Your task to perform on an android device: open device folders in google photos Image 0: 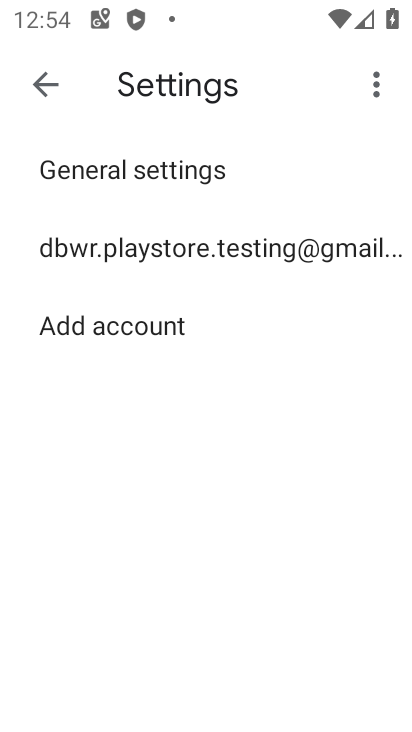
Step 0: press home button
Your task to perform on an android device: open device folders in google photos Image 1: 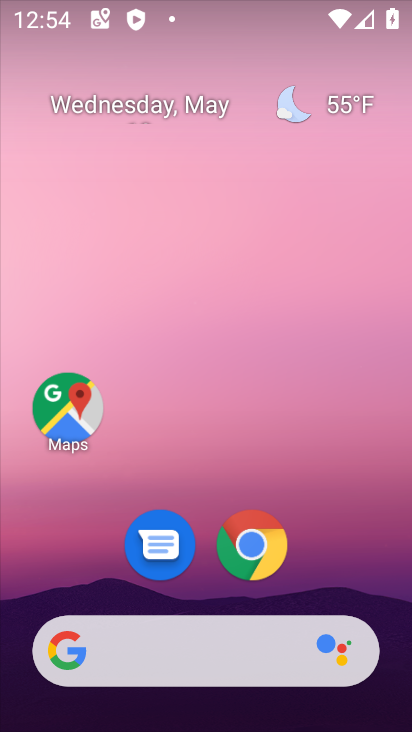
Step 1: drag from (303, 524) to (274, 38)
Your task to perform on an android device: open device folders in google photos Image 2: 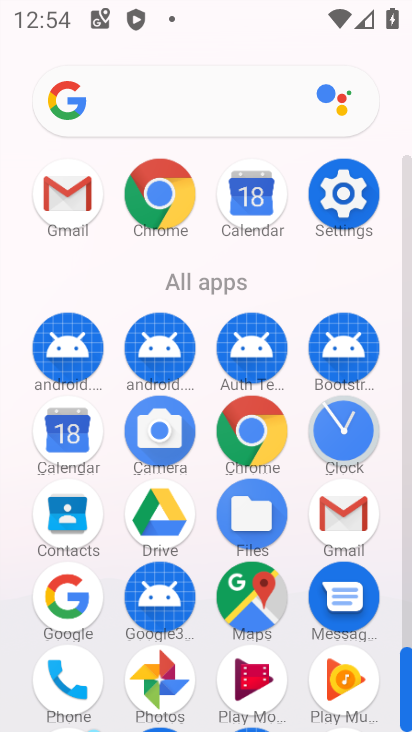
Step 2: click (163, 667)
Your task to perform on an android device: open device folders in google photos Image 3: 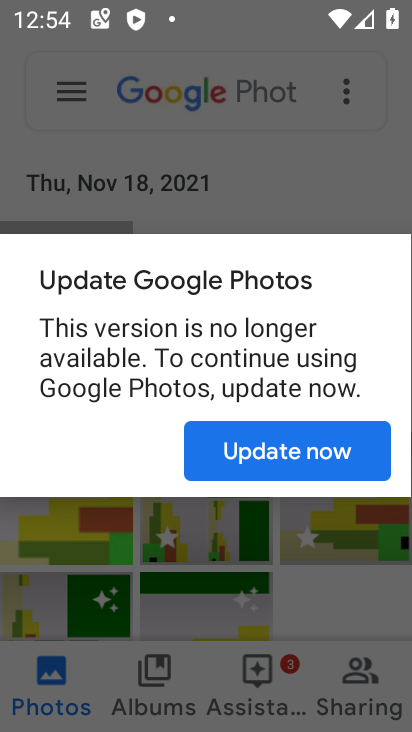
Step 3: click (275, 462)
Your task to perform on an android device: open device folders in google photos Image 4: 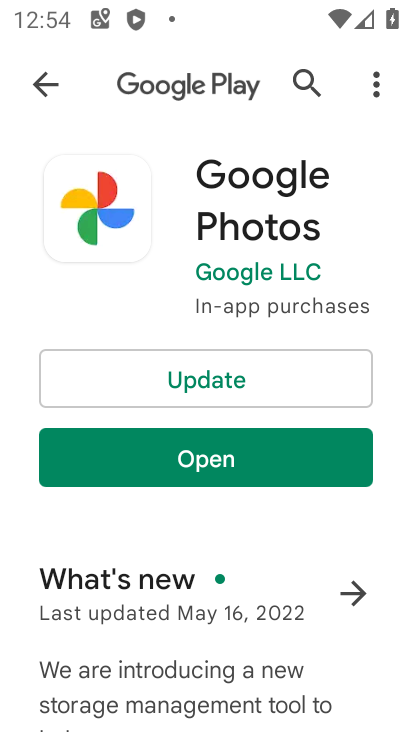
Step 4: click (306, 450)
Your task to perform on an android device: open device folders in google photos Image 5: 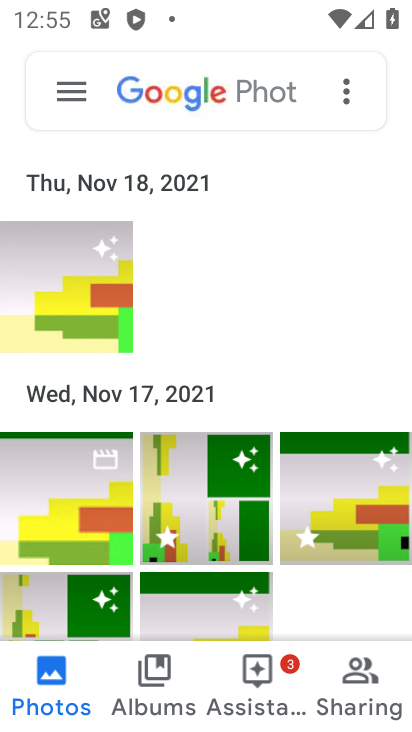
Step 5: click (78, 96)
Your task to perform on an android device: open device folders in google photos Image 6: 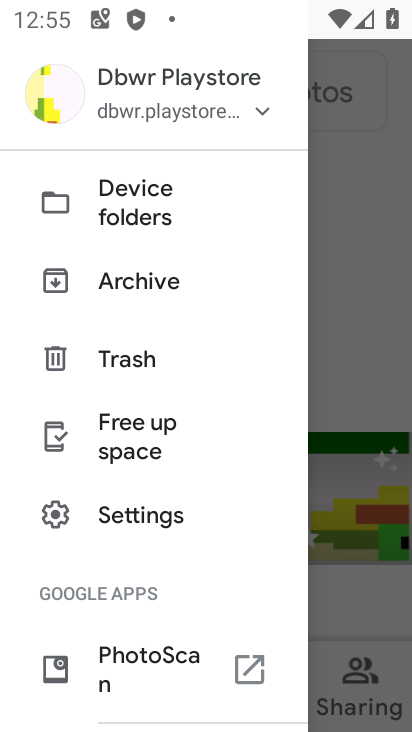
Step 6: click (152, 207)
Your task to perform on an android device: open device folders in google photos Image 7: 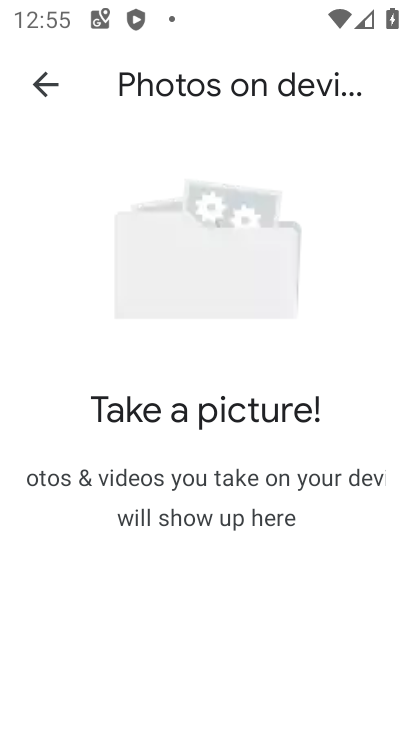
Step 7: task complete